Your task to perform on an android device: toggle airplane mode Image 0: 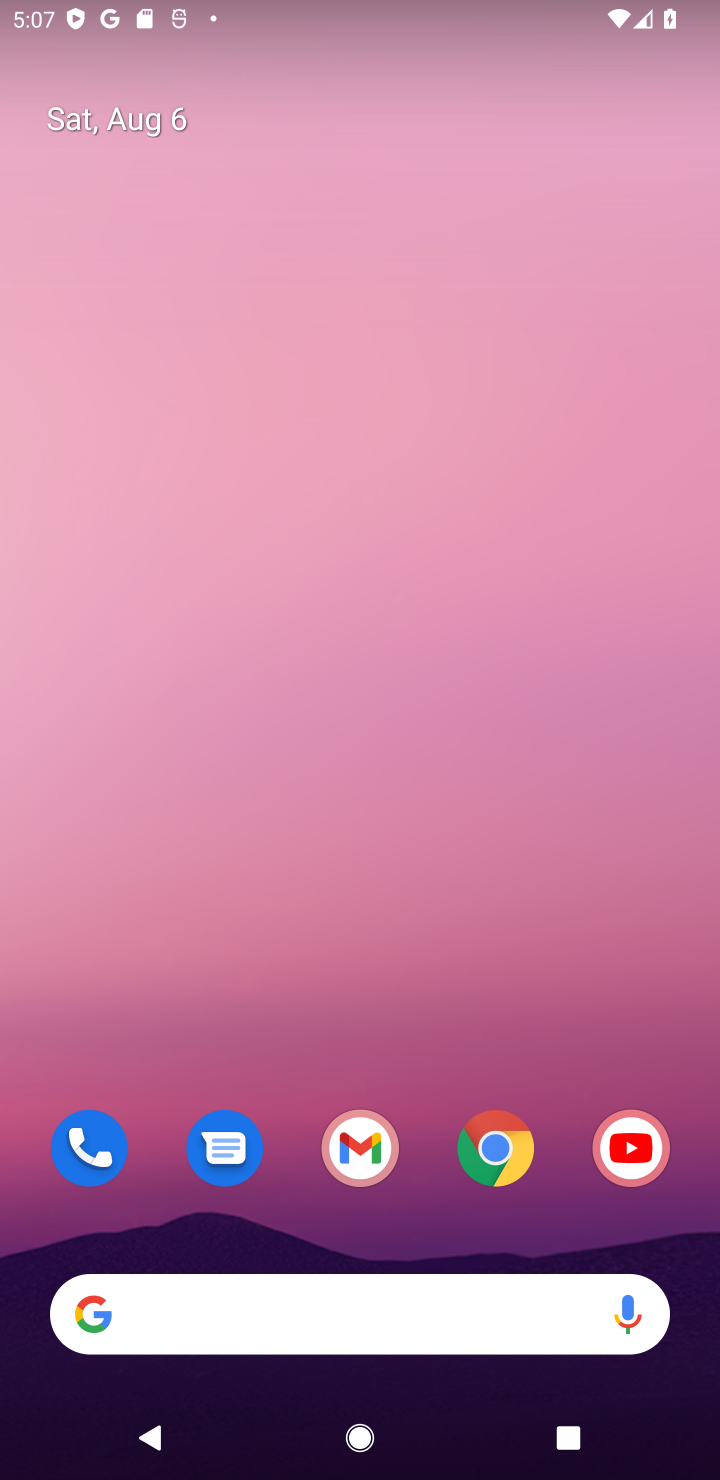
Step 0: drag from (406, 1279) to (389, 27)
Your task to perform on an android device: toggle airplane mode Image 1: 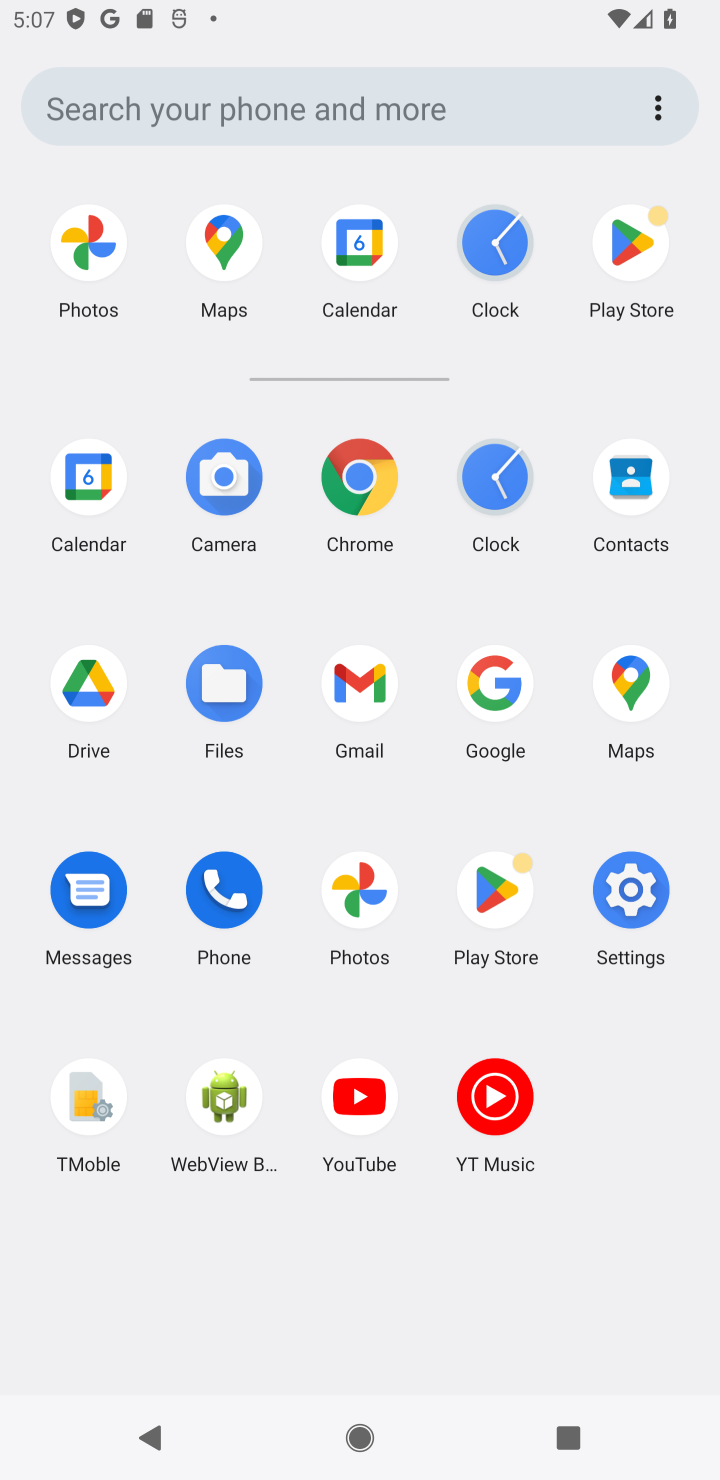
Step 1: click (603, 895)
Your task to perform on an android device: toggle airplane mode Image 2: 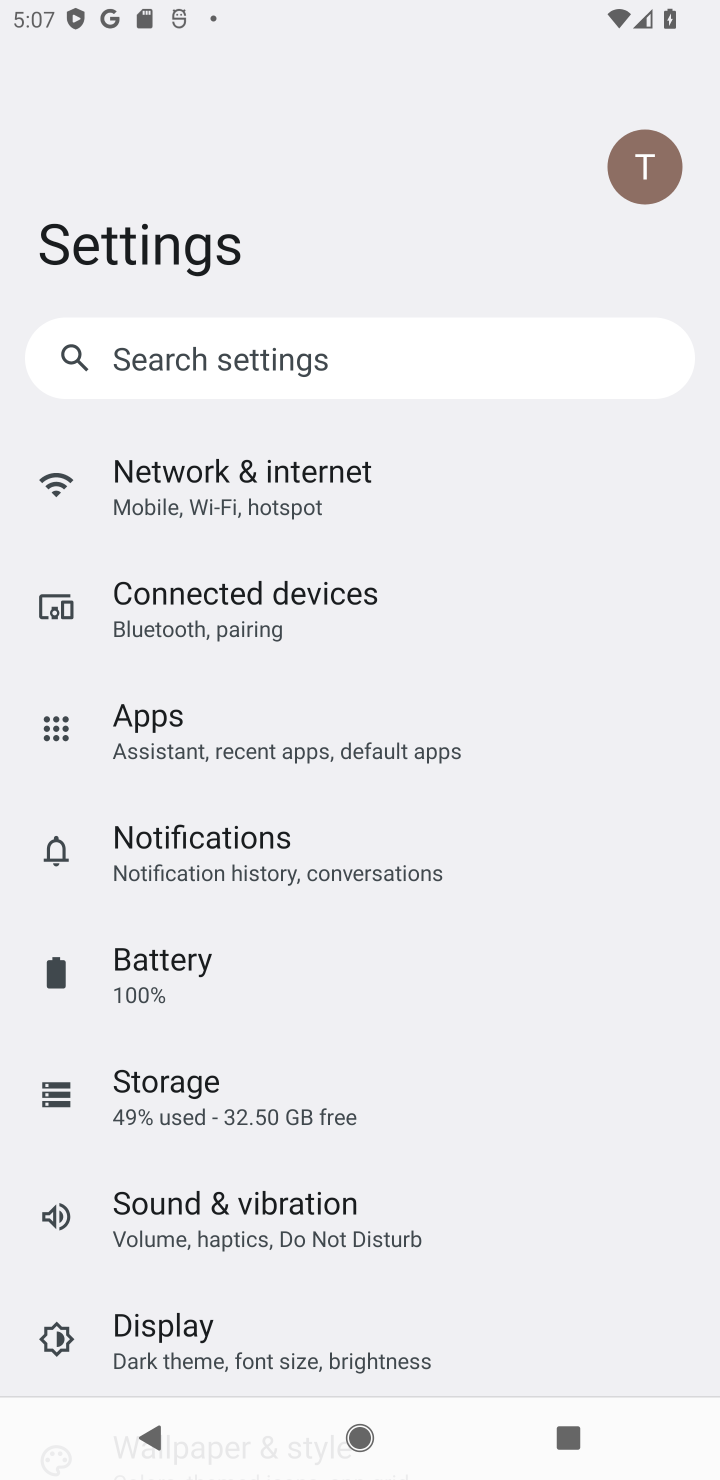
Step 2: click (137, 470)
Your task to perform on an android device: toggle airplane mode Image 3: 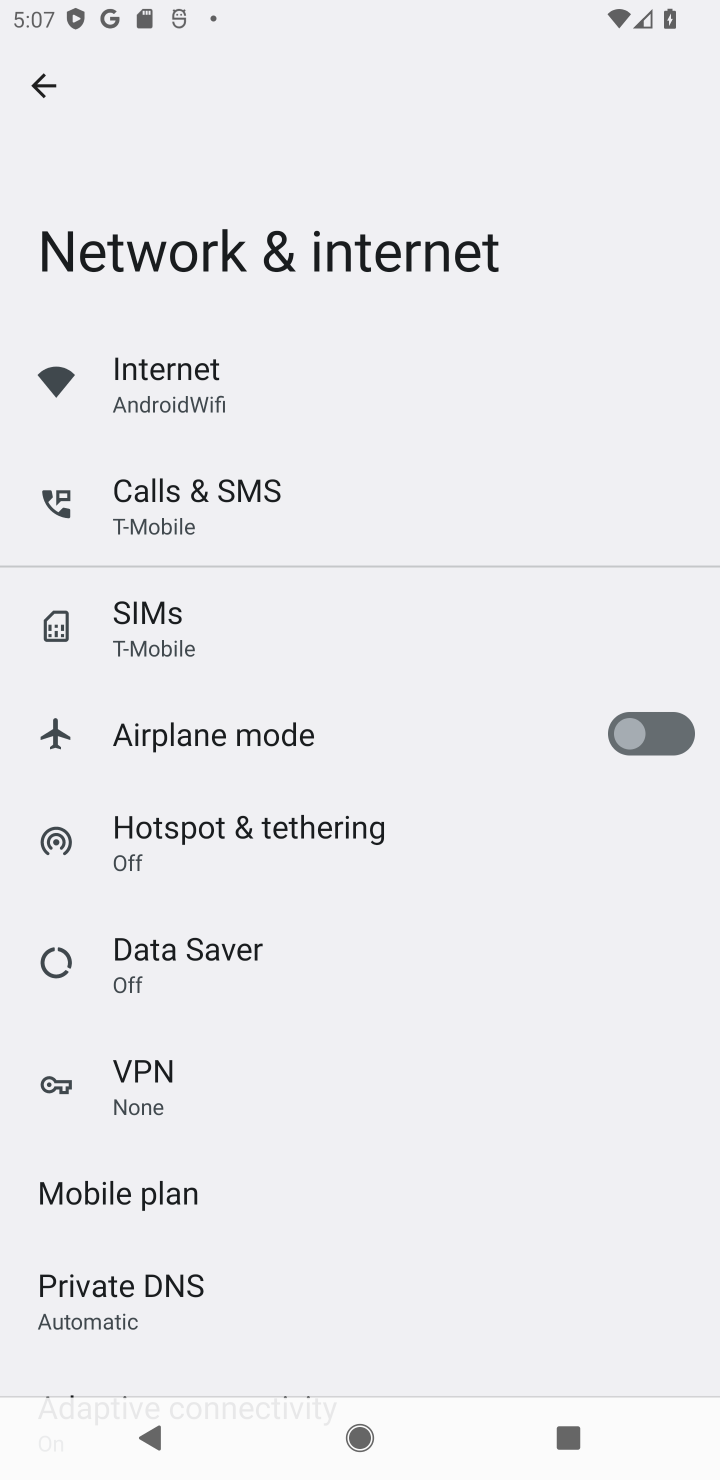
Step 3: click (204, 399)
Your task to perform on an android device: toggle airplane mode Image 4: 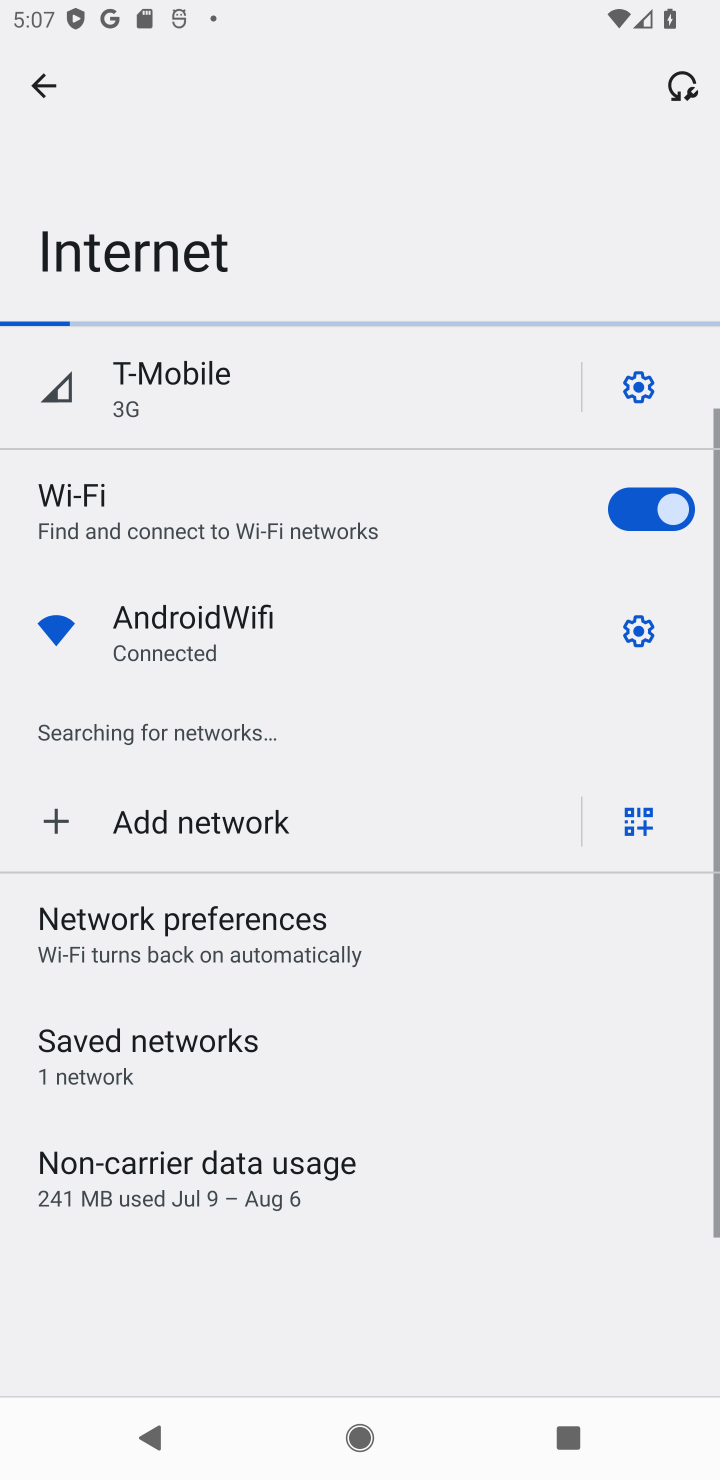
Step 4: click (12, 75)
Your task to perform on an android device: toggle airplane mode Image 5: 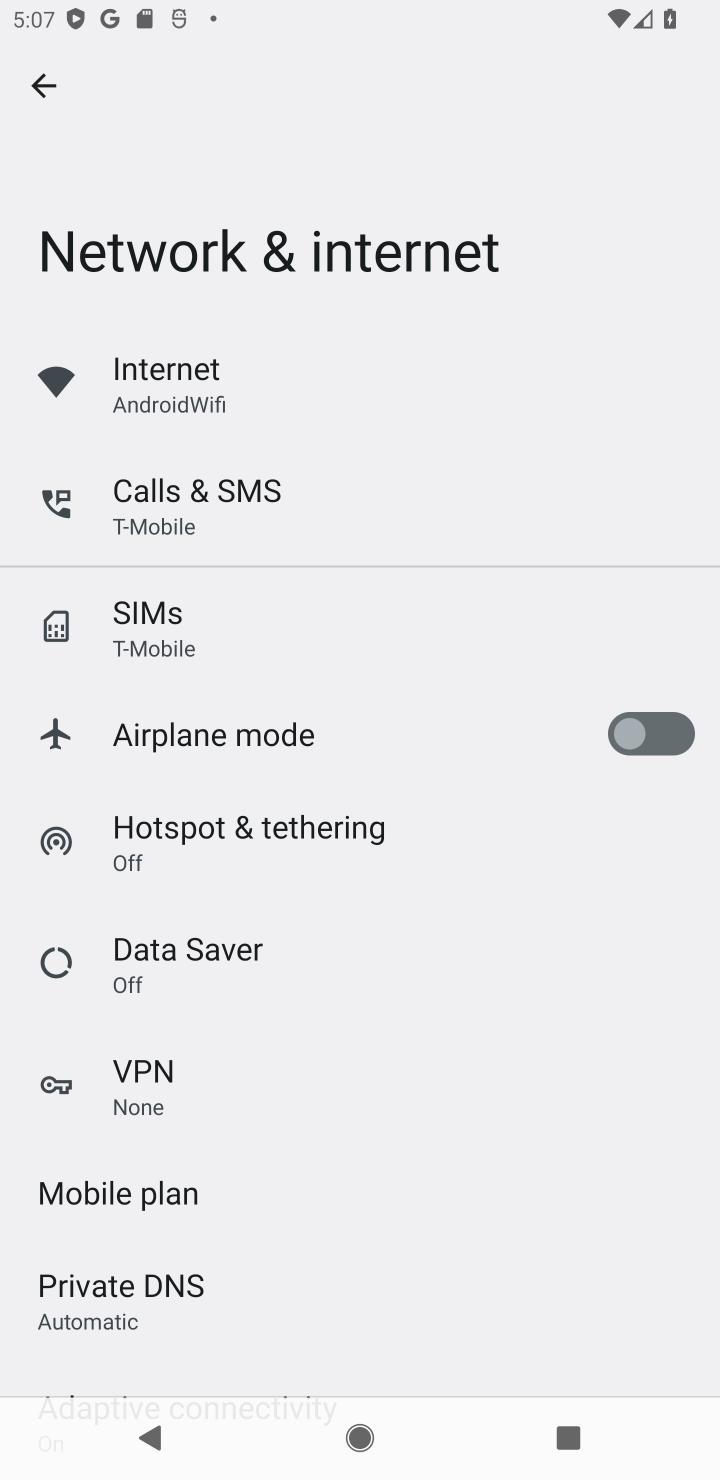
Step 5: click (637, 745)
Your task to perform on an android device: toggle airplane mode Image 6: 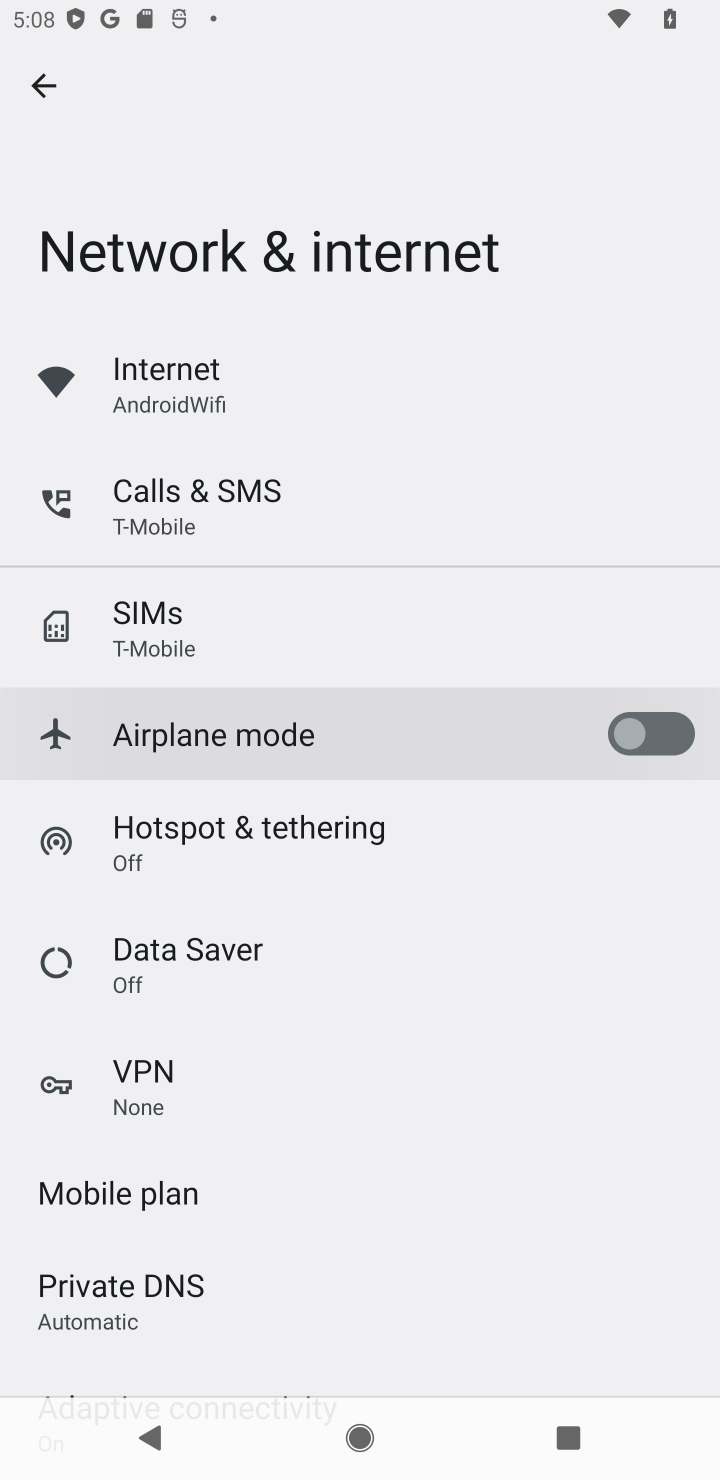
Step 6: task complete